Your task to perform on an android device: Open the map Image 0: 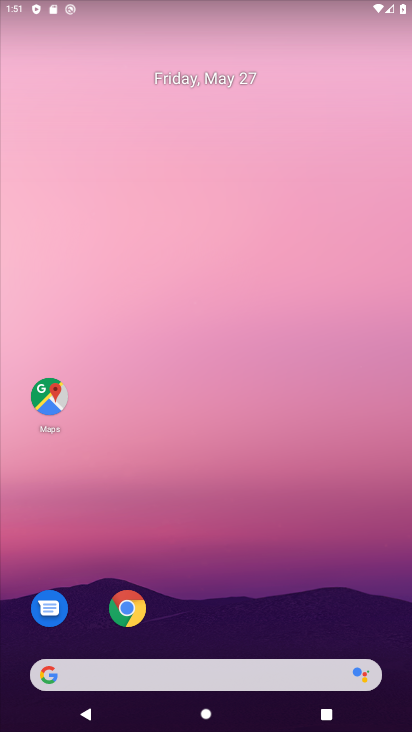
Step 0: click (53, 387)
Your task to perform on an android device: Open the map Image 1: 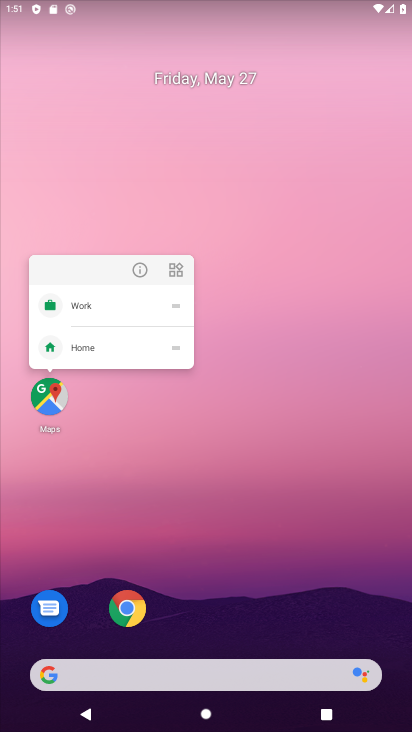
Step 1: click (54, 400)
Your task to perform on an android device: Open the map Image 2: 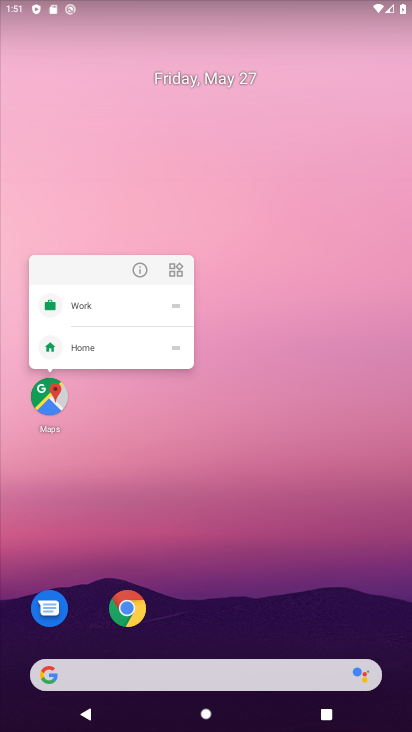
Step 2: click (54, 400)
Your task to perform on an android device: Open the map Image 3: 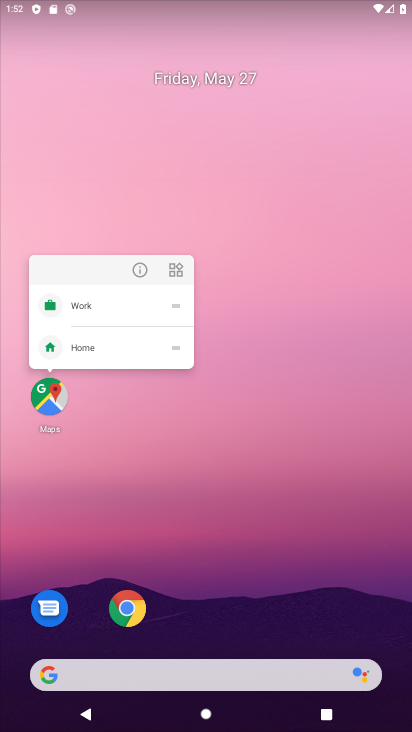
Step 3: click (54, 400)
Your task to perform on an android device: Open the map Image 4: 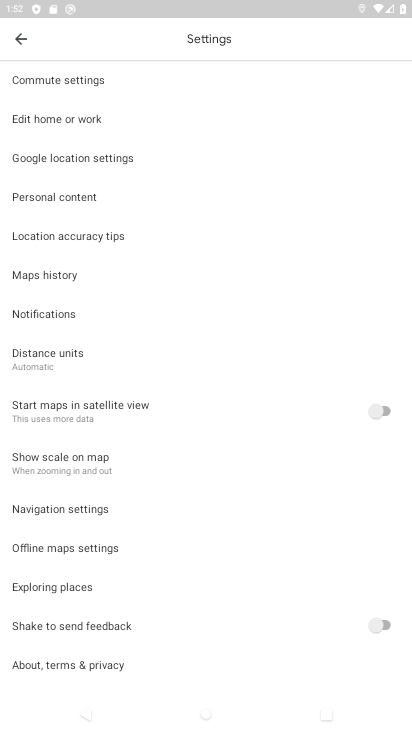
Step 4: click (22, 51)
Your task to perform on an android device: Open the map Image 5: 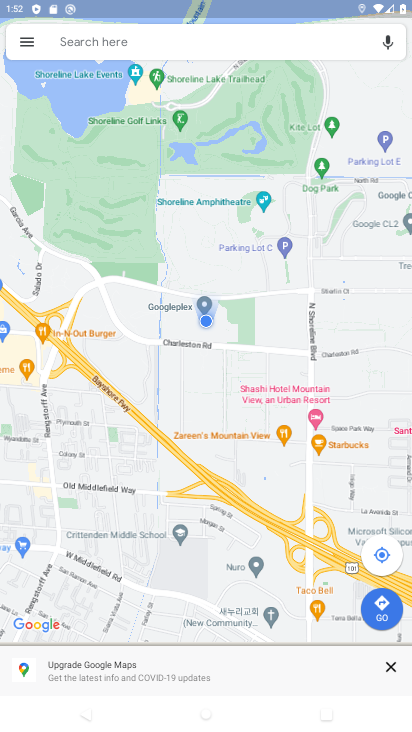
Step 5: task complete